Your task to perform on an android device: Open Amazon Image 0: 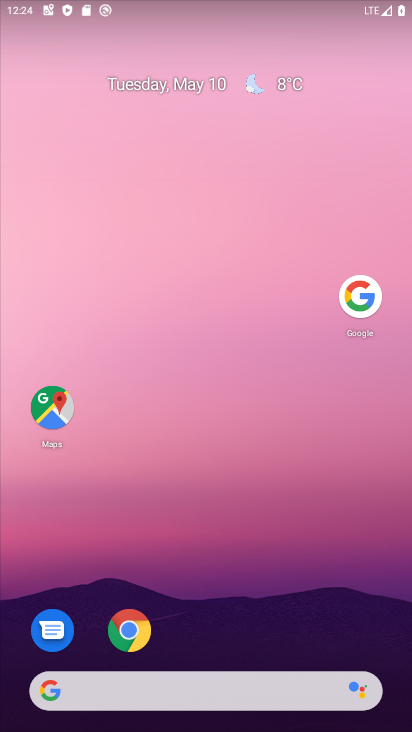
Step 0: click (126, 631)
Your task to perform on an android device: Open Amazon Image 1: 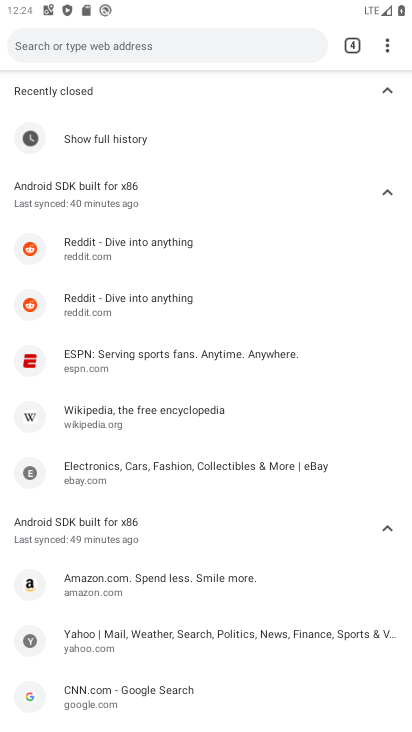
Step 1: drag from (387, 49) to (304, 90)
Your task to perform on an android device: Open Amazon Image 2: 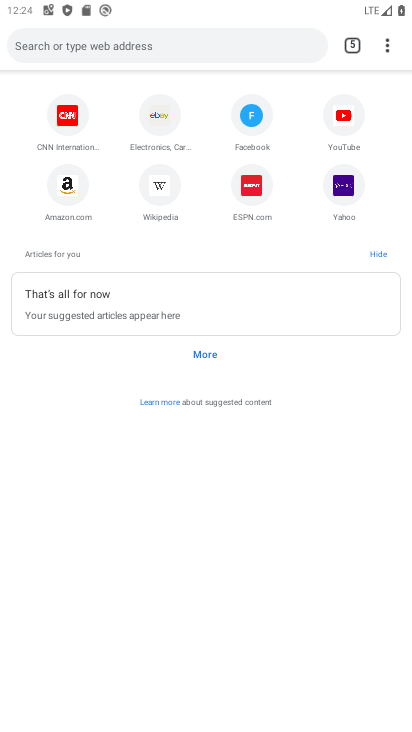
Step 2: click (63, 201)
Your task to perform on an android device: Open Amazon Image 3: 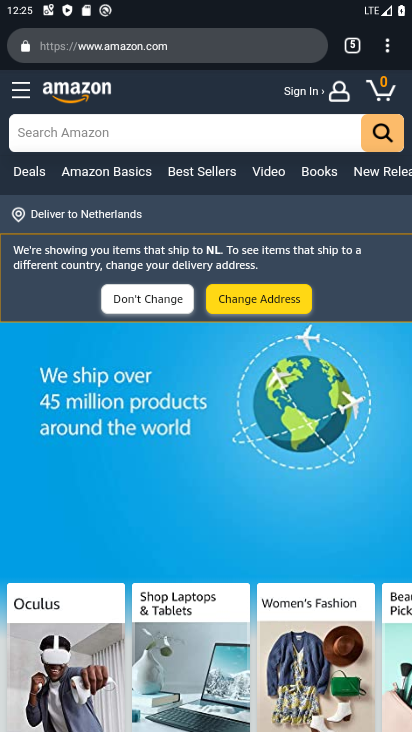
Step 3: task complete